Your task to perform on an android device: Clear the shopping cart on amazon.com. Add razer blade to the cart on amazon.com Image 0: 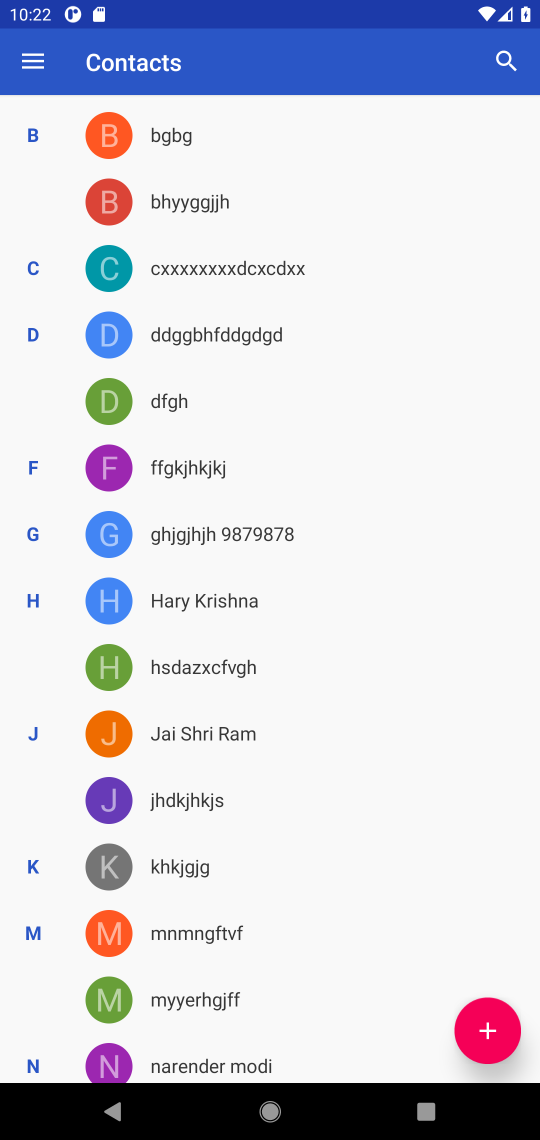
Step 0: press home button
Your task to perform on an android device: Clear the shopping cart on amazon.com. Add razer blade to the cart on amazon.com Image 1: 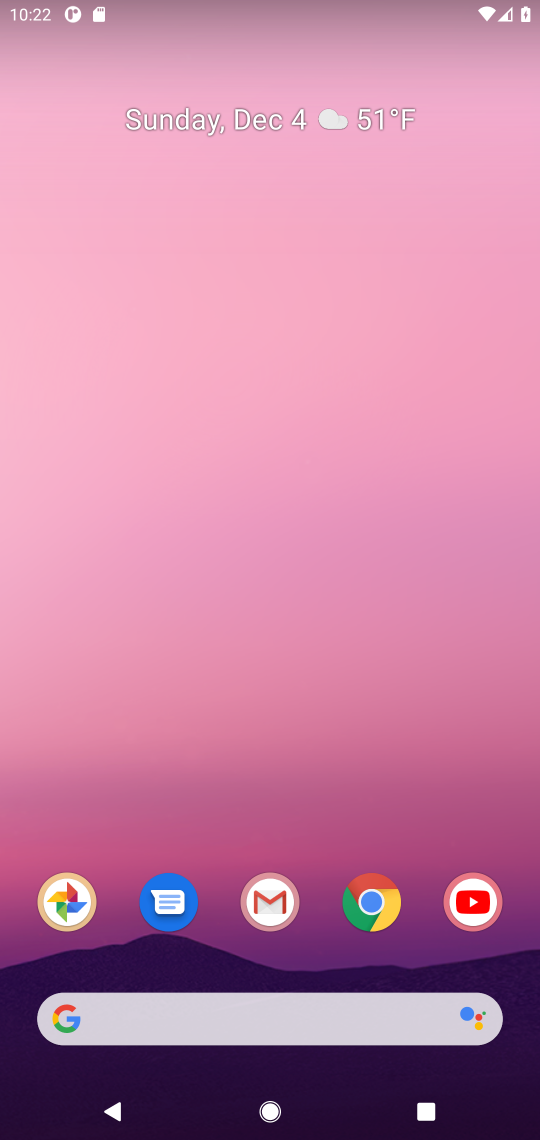
Step 1: click (383, 896)
Your task to perform on an android device: Clear the shopping cart on amazon.com. Add razer blade to the cart on amazon.com Image 2: 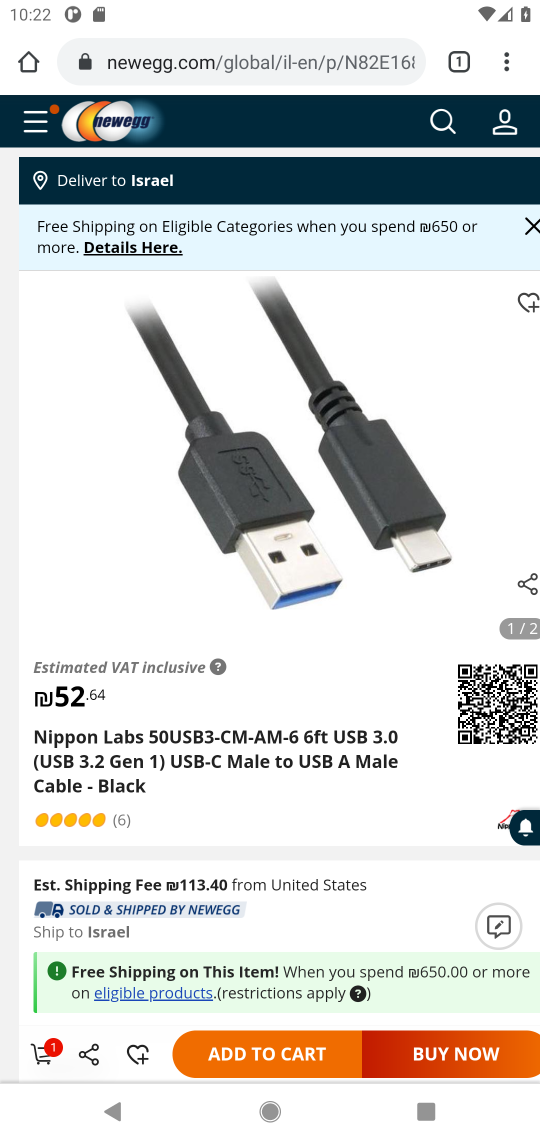
Step 2: click (309, 60)
Your task to perform on an android device: Clear the shopping cart on amazon.com. Add razer blade to the cart on amazon.com Image 3: 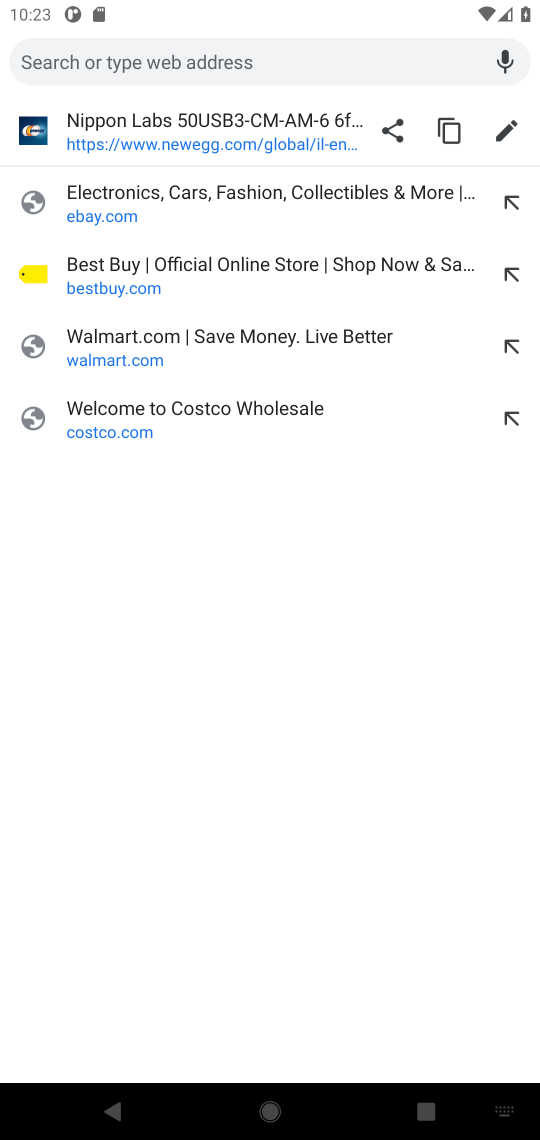
Step 3: type "amazon"
Your task to perform on an android device: Clear the shopping cart on amazon.com. Add razer blade to the cart on amazon.com Image 4: 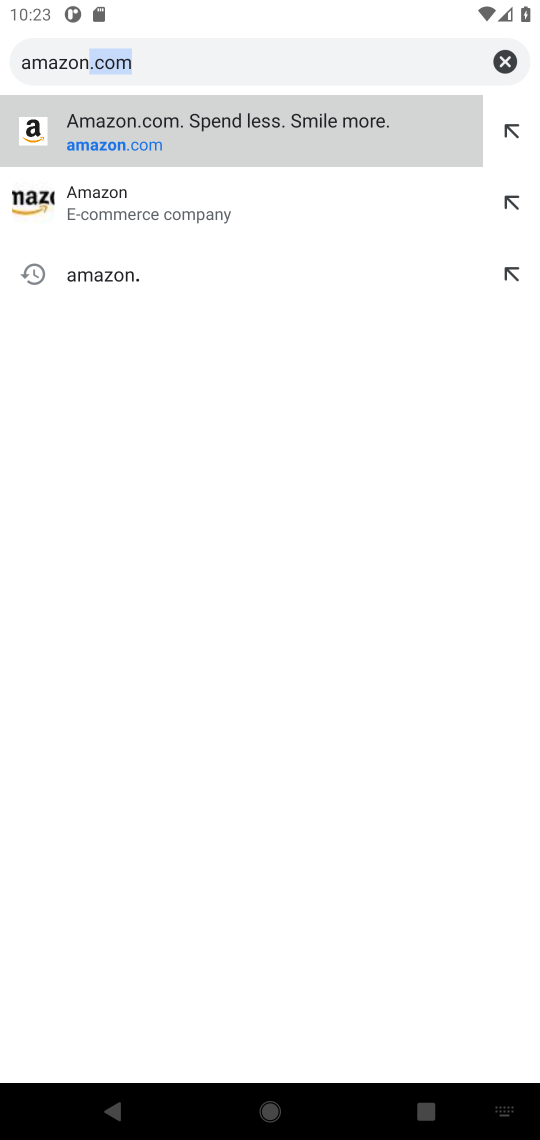
Step 4: click (226, 110)
Your task to perform on an android device: Clear the shopping cart on amazon.com. Add razer blade to the cart on amazon.com Image 5: 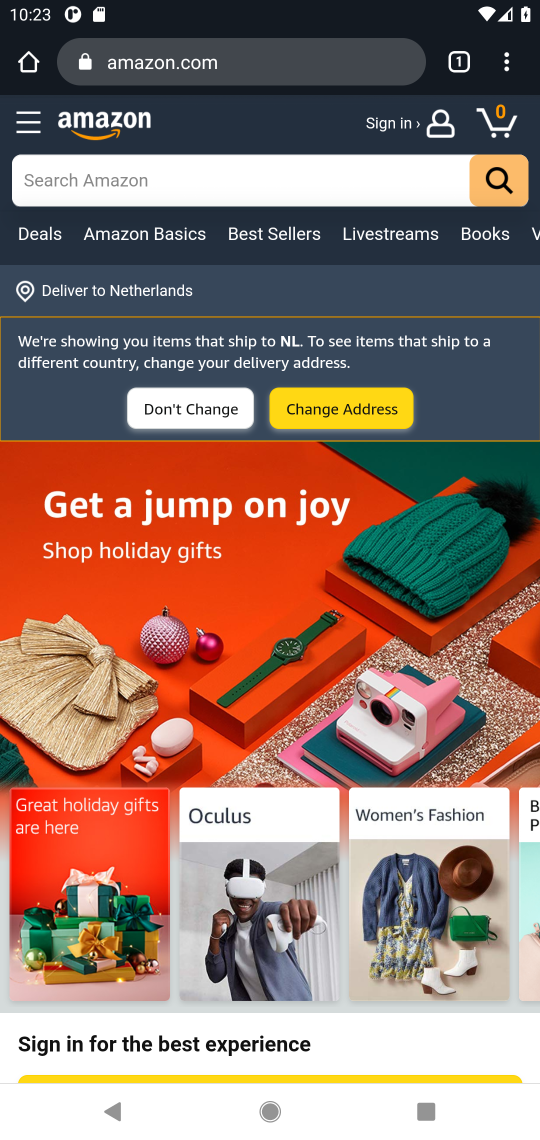
Step 5: click (192, 183)
Your task to perform on an android device: Clear the shopping cart on amazon.com. Add razer blade to the cart on amazon.com Image 6: 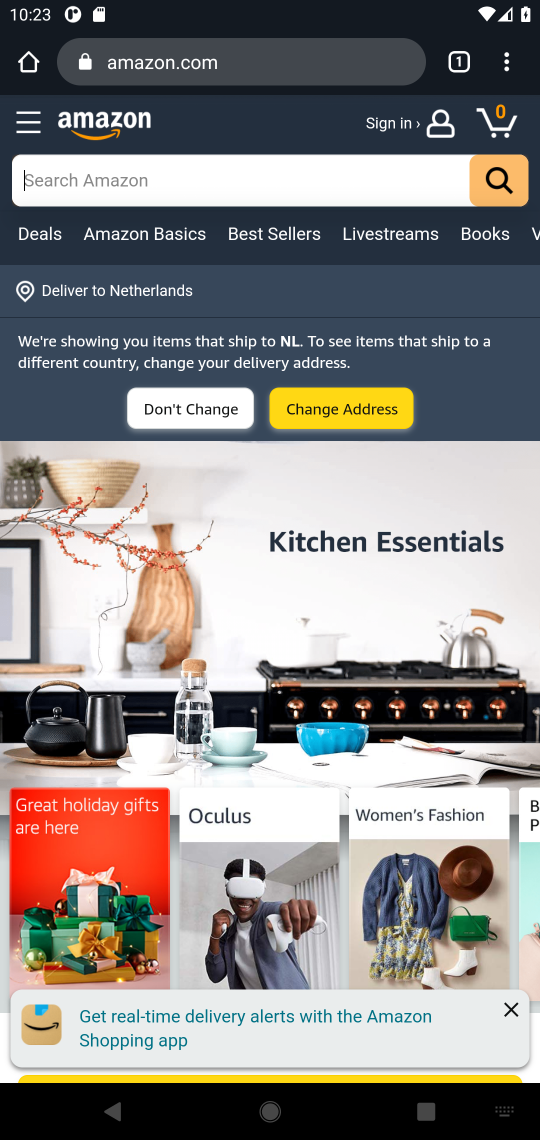
Step 6: type "razer blade"
Your task to perform on an android device: Clear the shopping cart on amazon.com. Add razer blade to the cart on amazon.com Image 7: 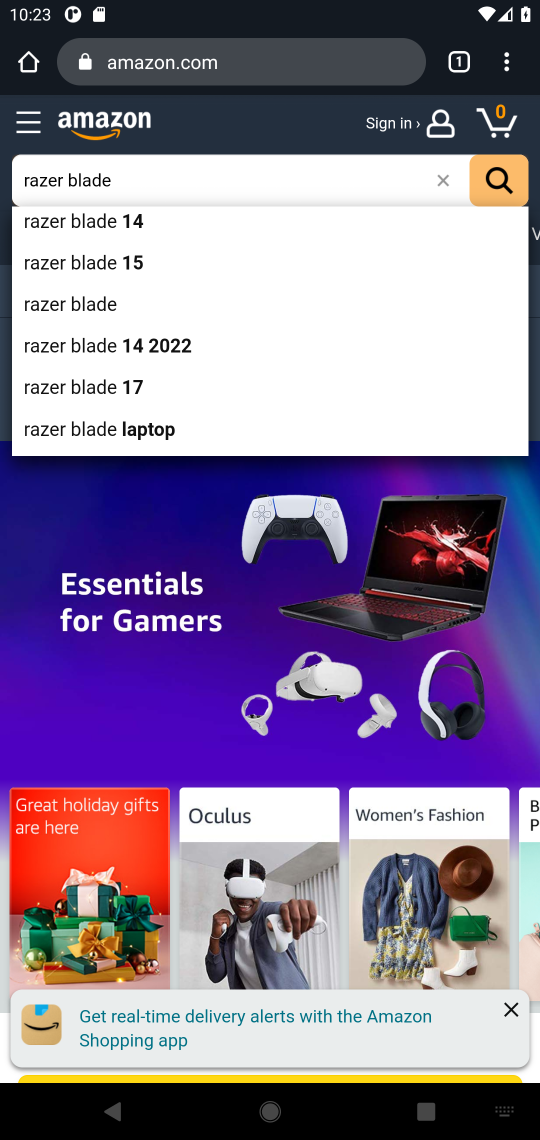
Step 7: click (480, 187)
Your task to perform on an android device: Clear the shopping cart on amazon.com. Add razer blade to the cart on amazon.com Image 8: 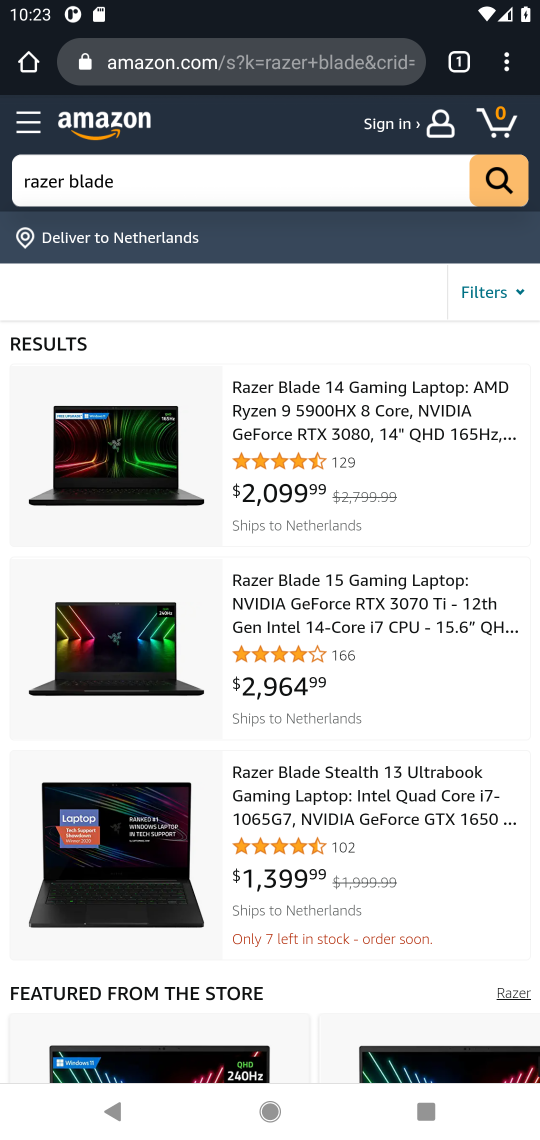
Step 8: click (304, 431)
Your task to perform on an android device: Clear the shopping cart on amazon.com. Add razer blade to the cart on amazon.com Image 9: 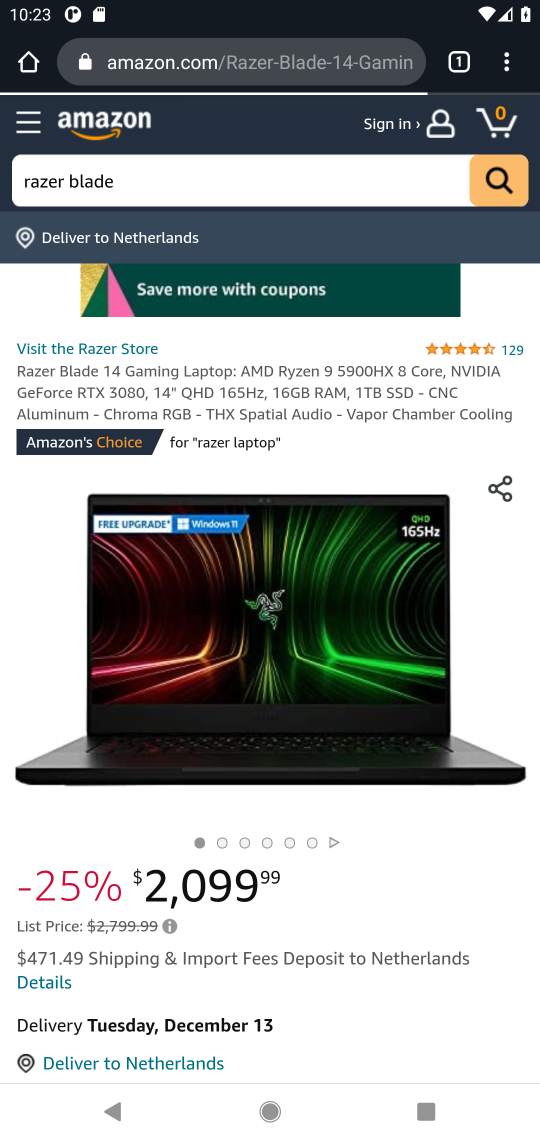
Step 9: drag from (189, 983) to (268, 422)
Your task to perform on an android device: Clear the shopping cart on amazon.com. Add razer blade to the cart on amazon.com Image 10: 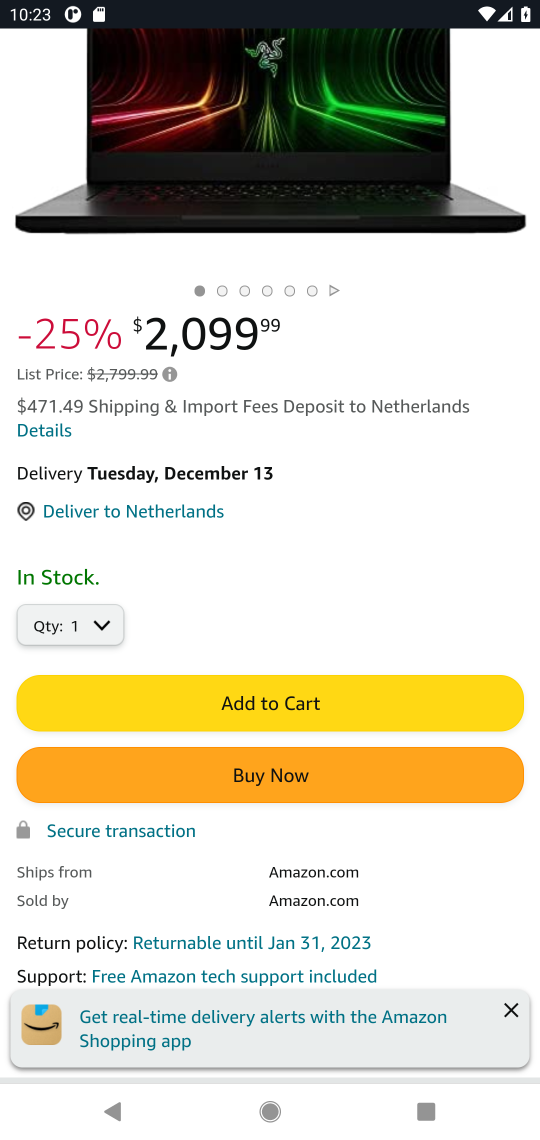
Step 10: click (297, 695)
Your task to perform on an android device: Clear the shopping cart on amazon.com. Add razer blade to the cart on amazon.com Image 11: 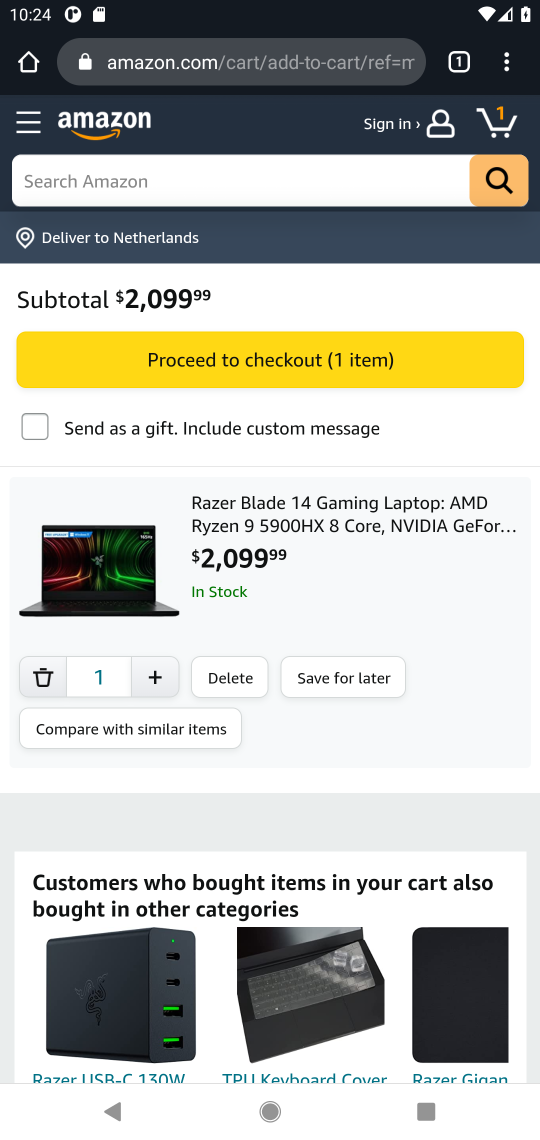
Step 11: task complete